Your task to perform on an android device: open device folders in google photos Image 0: 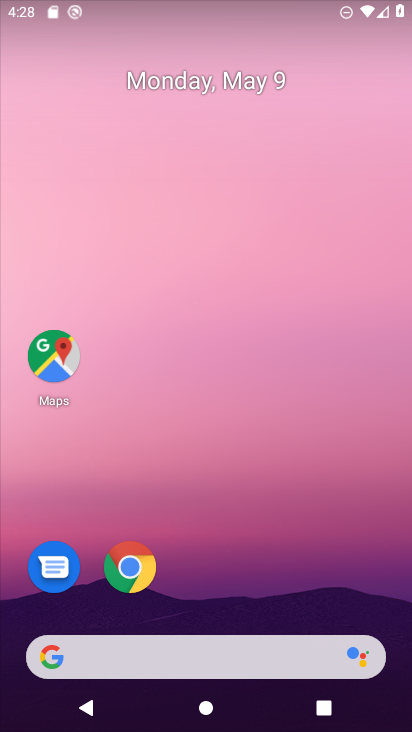
Step 0: drag from (227, 585) to (224, 87)
Your task to perform on an android device: open device folders in google photos Image 1: 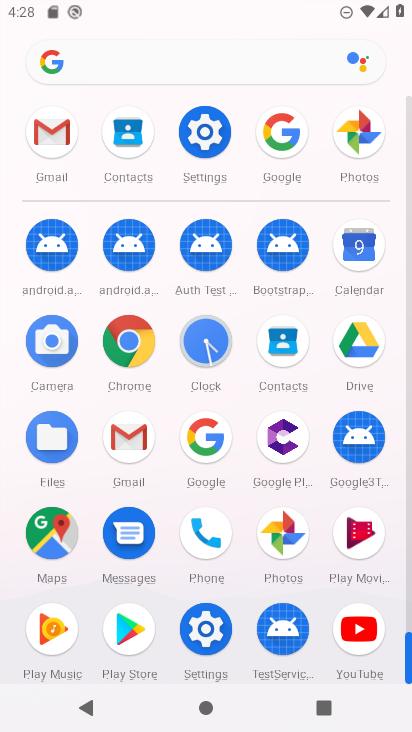
Step 1: click (289, 548)
Your task to perform on an android device: open device folders in google photos Image 2: 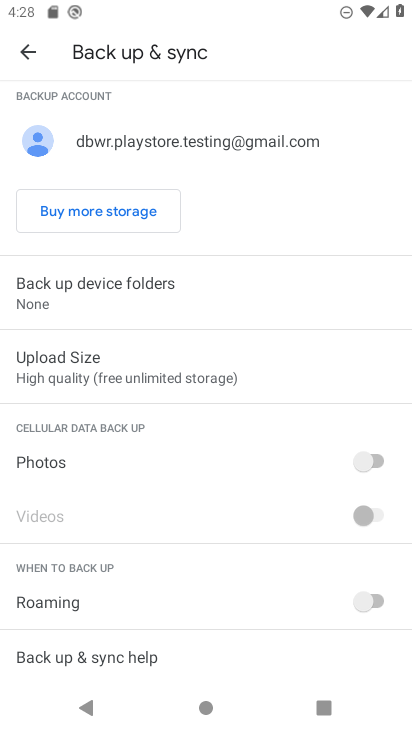
Step 2: click (12, 42)
Your task to perform on an android device: open device folders in google photos Image 3: 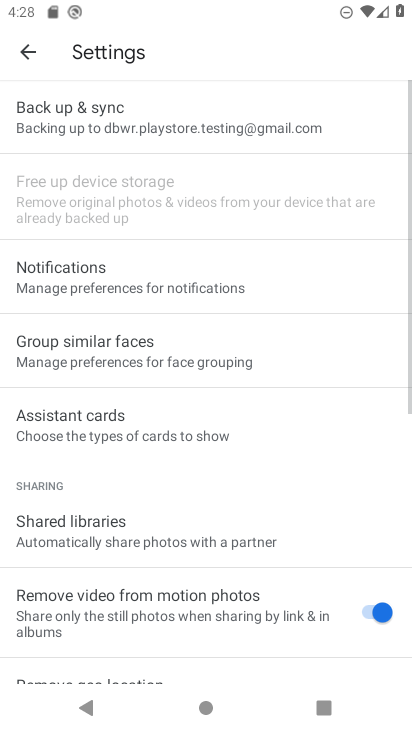
Step 3: click (26, 49)
Your task to perform on an android device: open device folders in google photos Image 4: 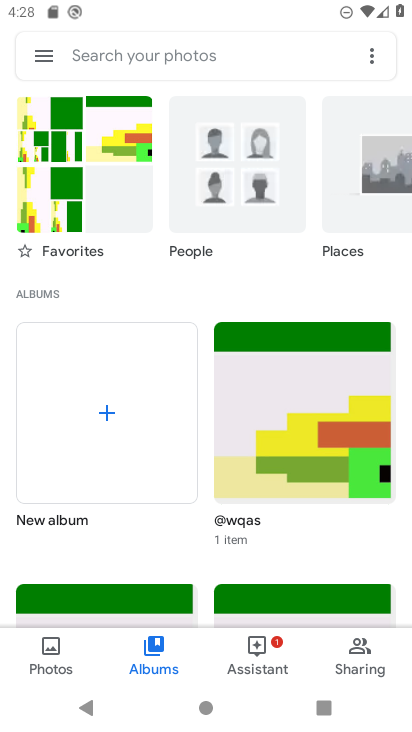
Step 4: click (45, 58)
Your task to perform on an android device: open device folders in google photos Image 5: 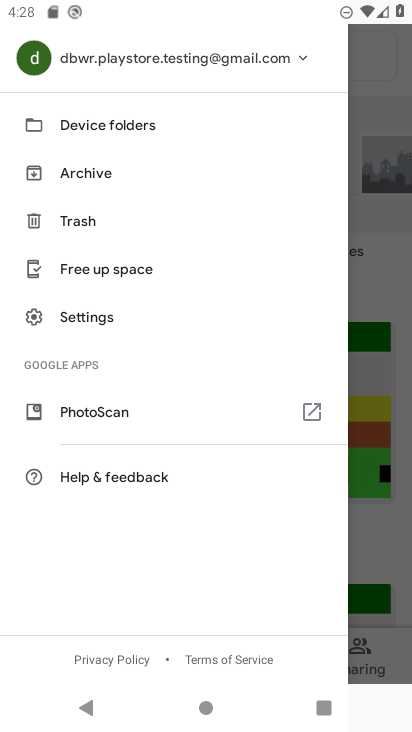
Step 5: click (133, 117)
Your task to perform on an android device: open device folders in google photos Image 6: 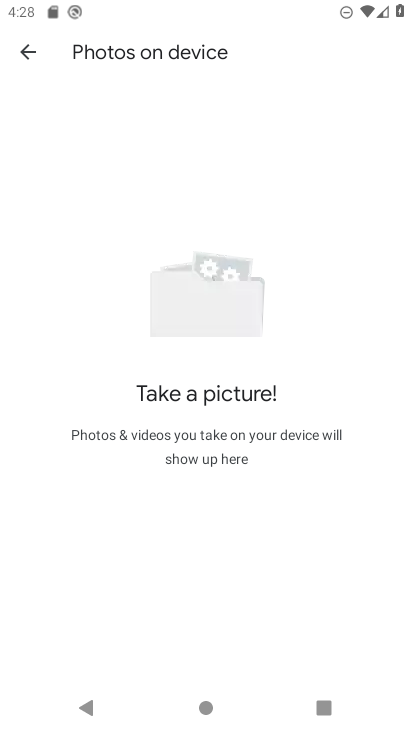
Step 6: task complete